Your task to perform on an android device: Go to settings Image 0: 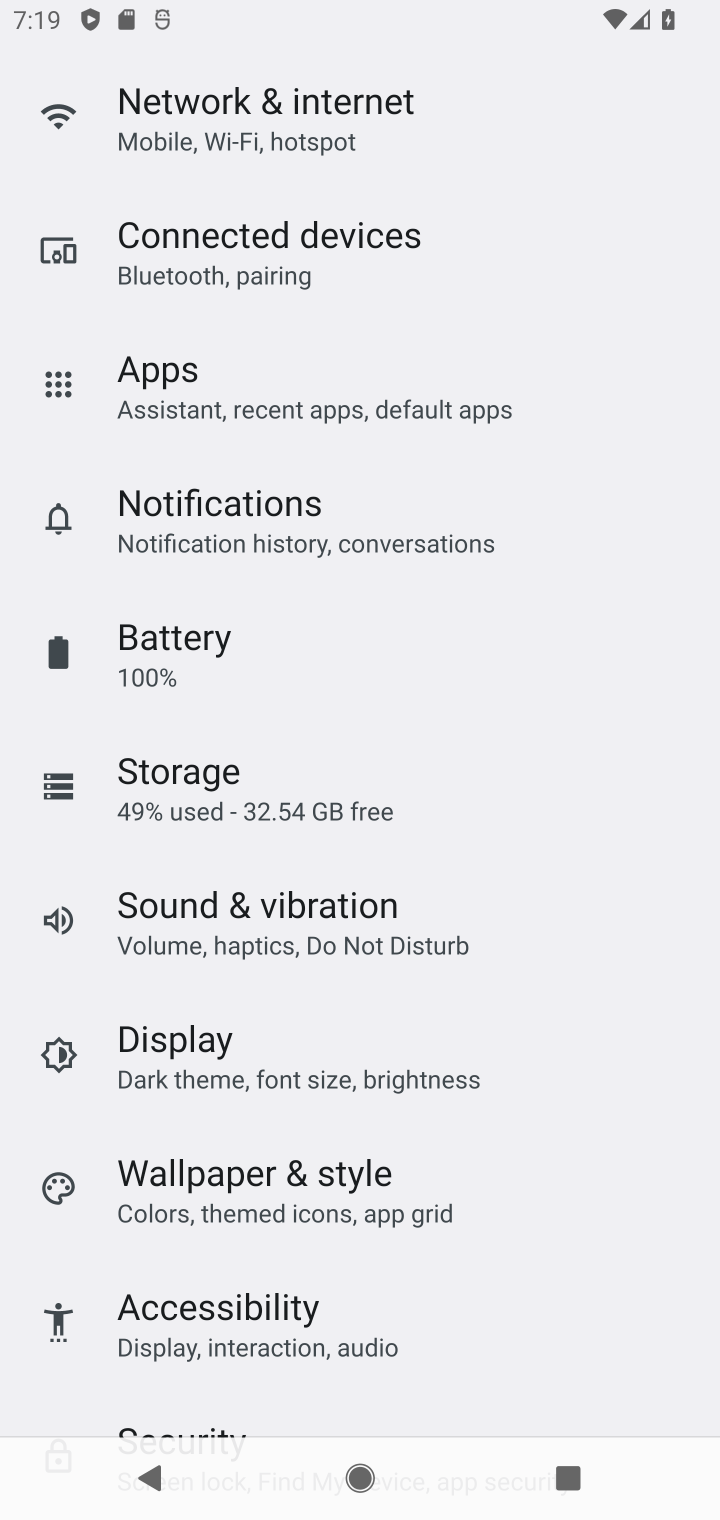
Step 0: task complete